Your task to perform on an android device: When is my next meeting? Image 0: 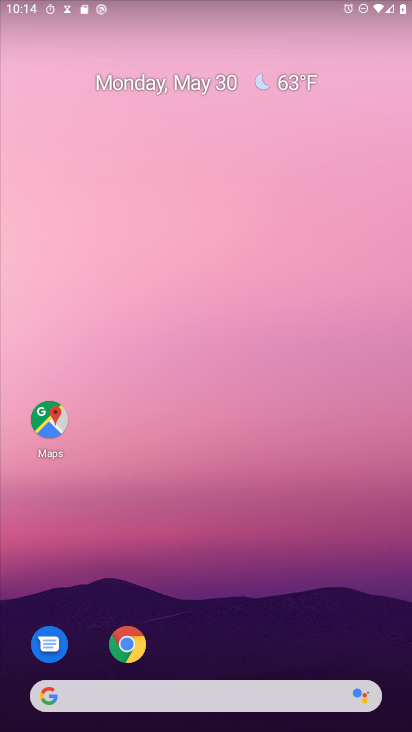
Step 0: drag from (267, 617) to (322, 27)
Your task to perform on an android device: When is my next meeting? Image 1: 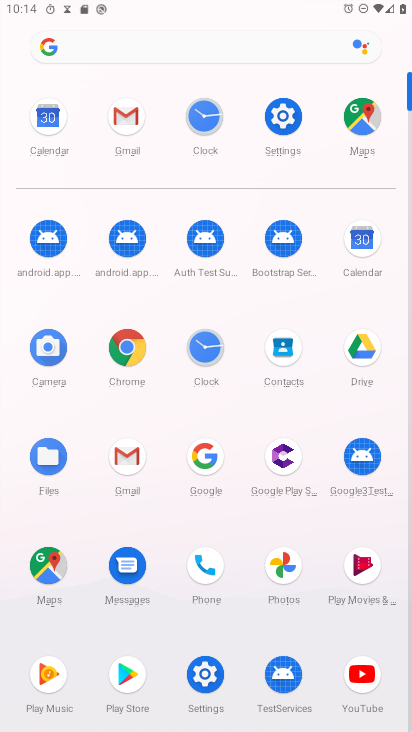
Step 1: click (358, 241)
Your task to perform on an android device: When is my next meeting? Image 2: 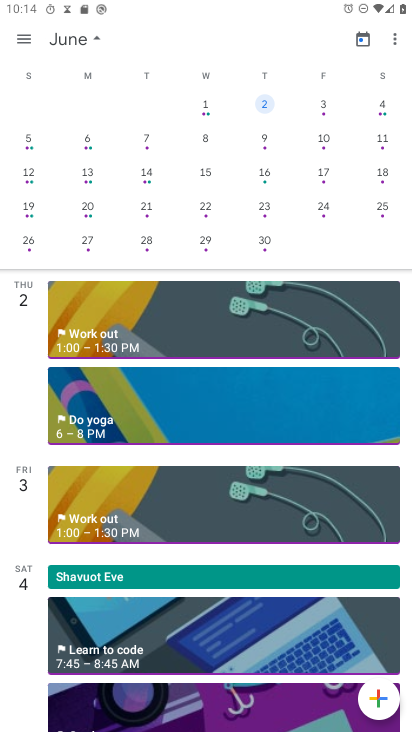
Step 2: drag from (55, 237) to (408, 225)
Your task to perform on an android device: When is my next meeting? Image 3: 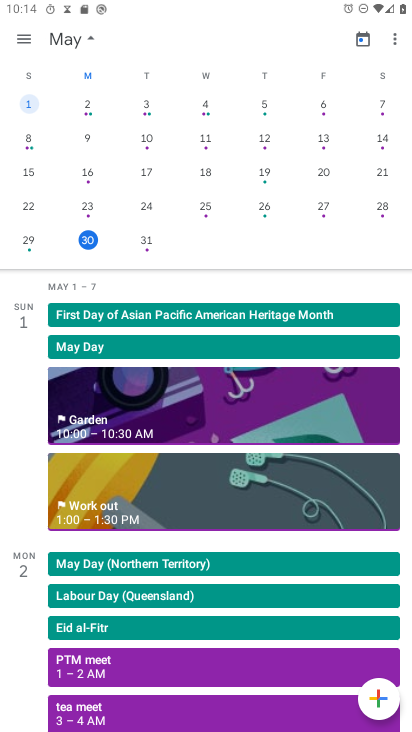
Step 3: click (143, 241)
Your task to perform on an android device: When is my next meeting? Image 4: 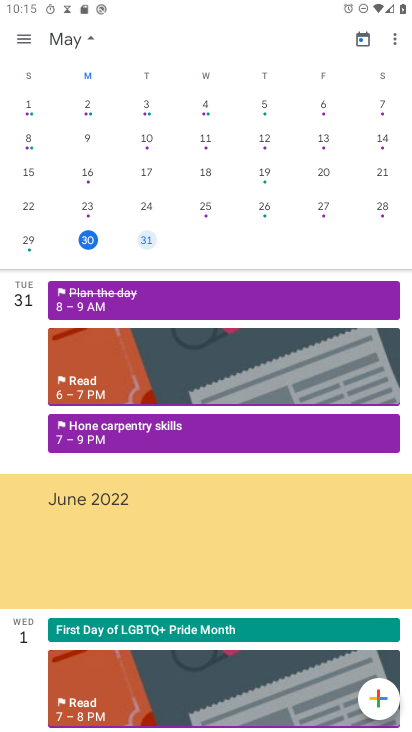
Step 4: task complete